Your task to perform on an android device: clear history in the chrome app Image 0: 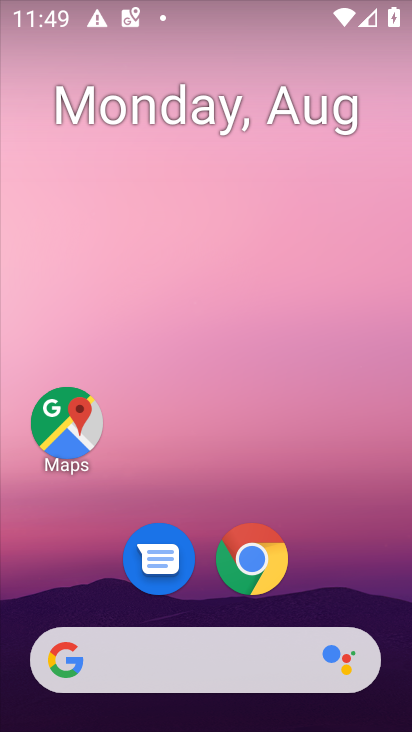
Step 0: drag from (201, 564) to (210, 19)
Your task to perform on an android device: clear history in the chrome app Image 1: 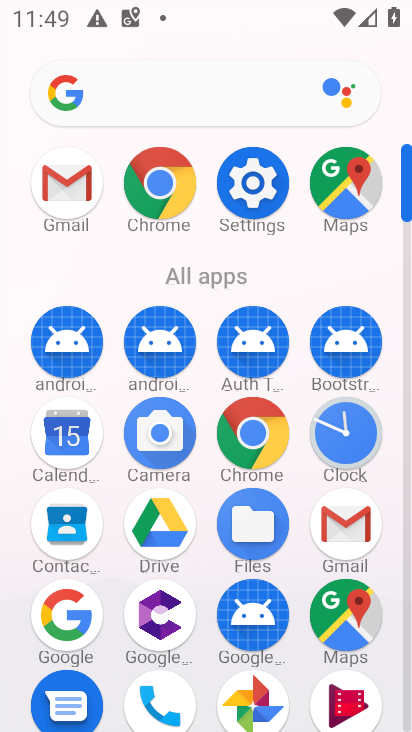
Step 1: click (257, 447)
Your task to perform on an android device: clear history in the chrome app Image 2: 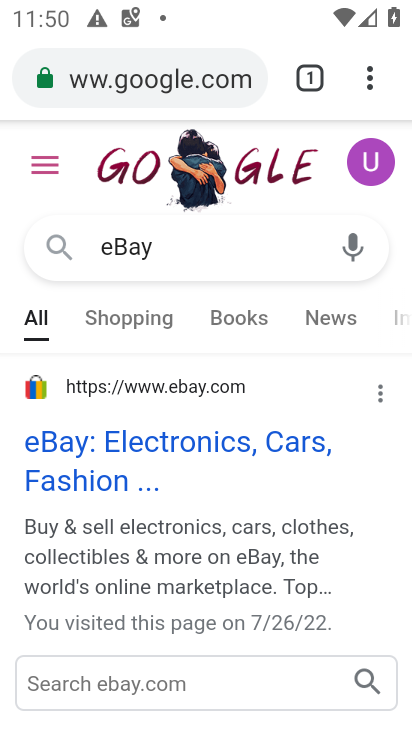
Step 2: click (359, 71)
Your task to perform on an android device: clear history in the chrome app Image 3: 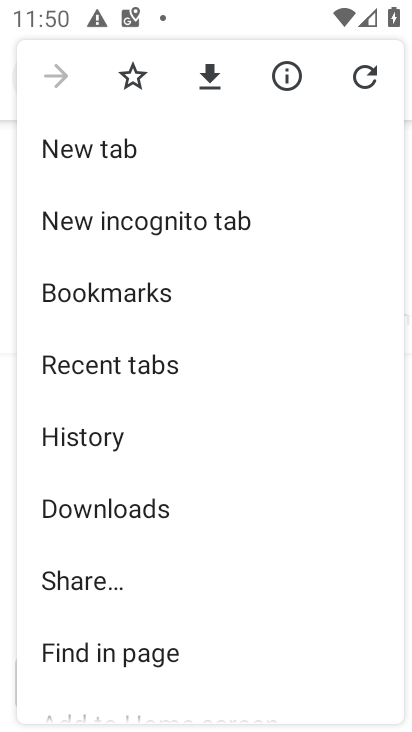
Step 3: click (108, 433)
Your task to perform on an android device: clear history in the chrome app Image 4: 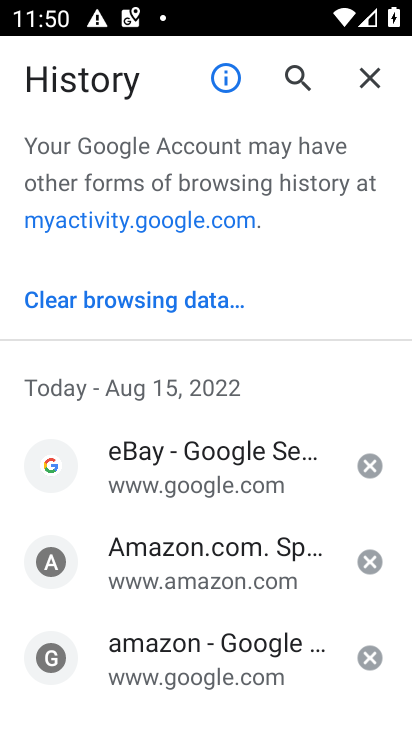
Step 4: click (143, 300)
Your task to perform on an android device: clear history in the chrome app Image 5: 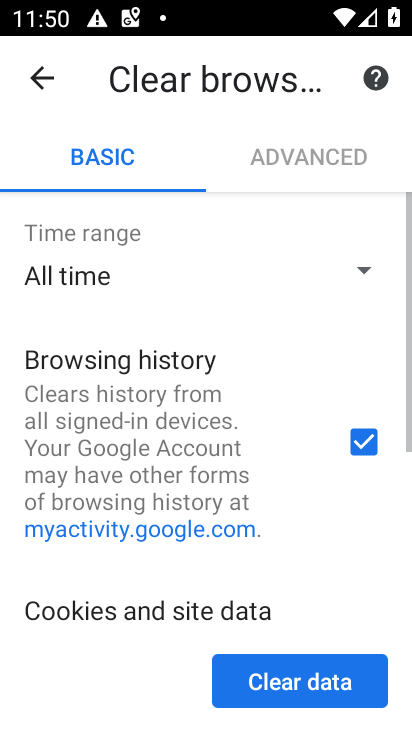
Step 5: drag from (213, 483) to (222, 223)
Your task to perform on an android device: clear history in the chrome app Image 6: 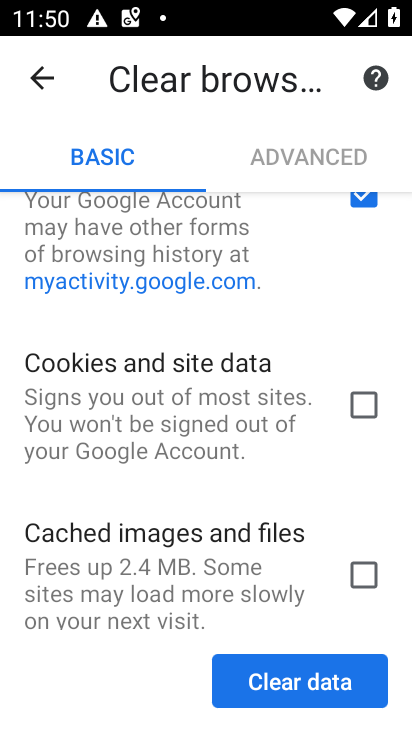
Step 6: click (345, 415)
Your task to perform on an android device: clear history in the chrome app Image 7: 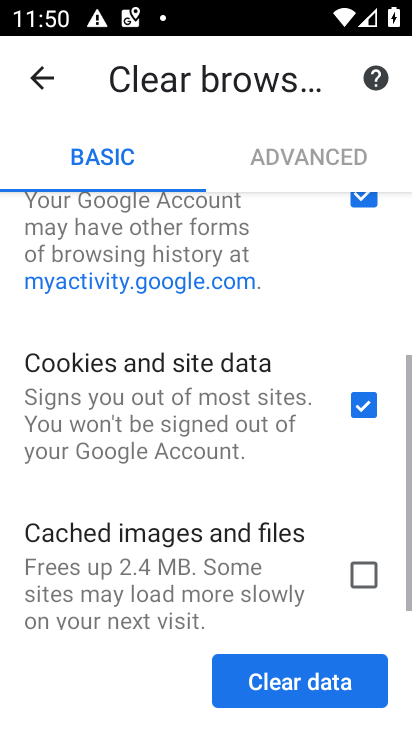
Step 7: click (356, 582)
Your task to perform on an android device: clear history in the chrome app Image 8: 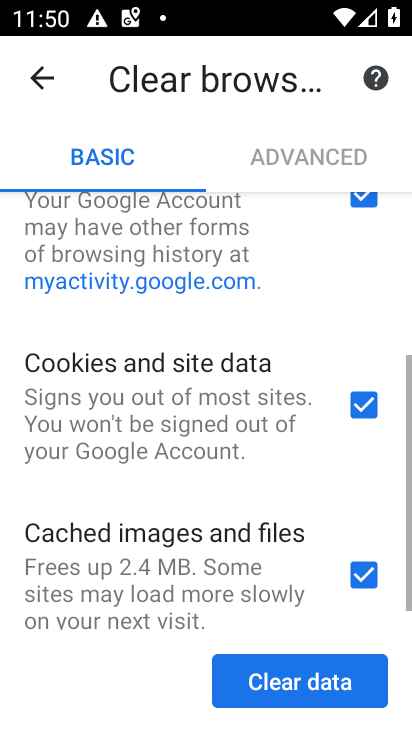
Step 8: click (341, 686)
Your task to perform on an android device: clear history in the chrome app Image 9: 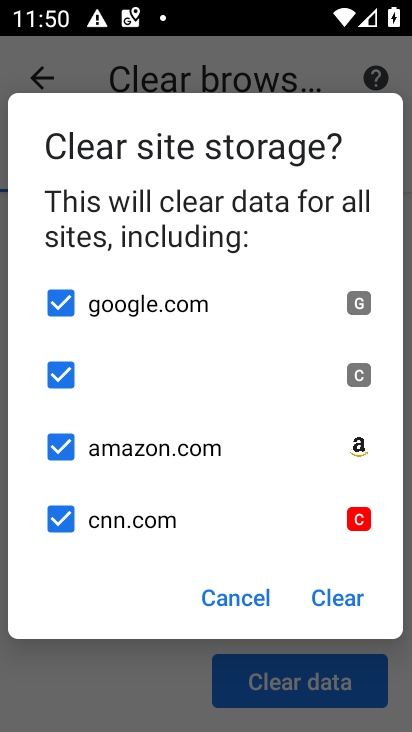
Step 9: click (327, 602)
Your task to perform on an android device: clear history in the chrome app Image 10: 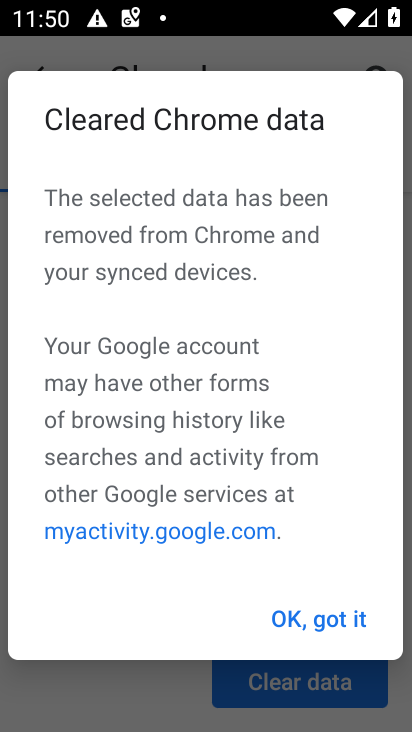
Step 10: click (311, 621)
Your task to perform on an android device: clear history in the chrome app Image 11: 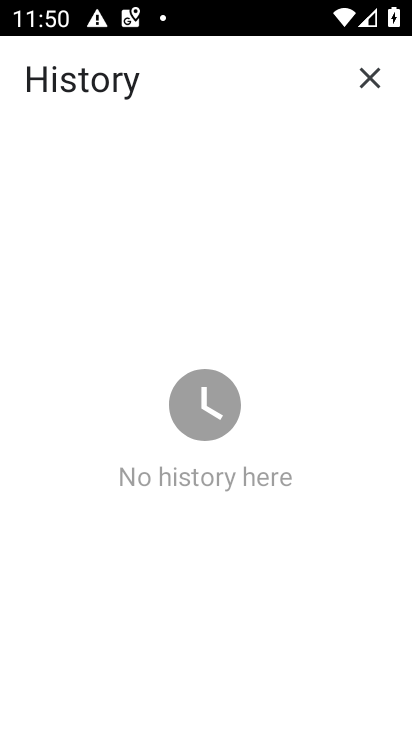
Step 11: task complete